Your task to perform on an android device: change the clock display to analog Image 0: 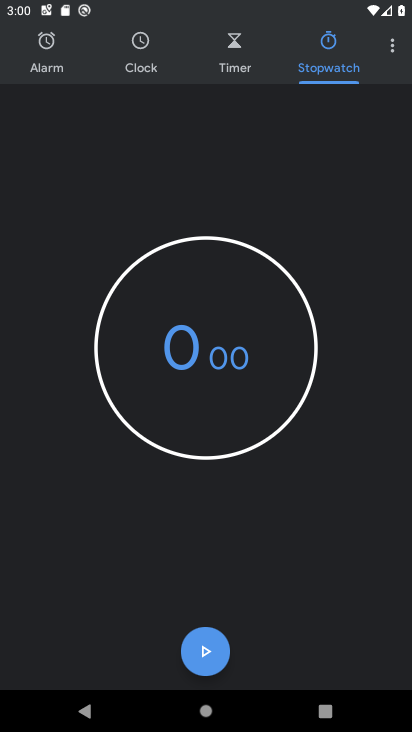
Step 0: press home button
Your task to perform on an android device: change the clock display to analog Image 1: 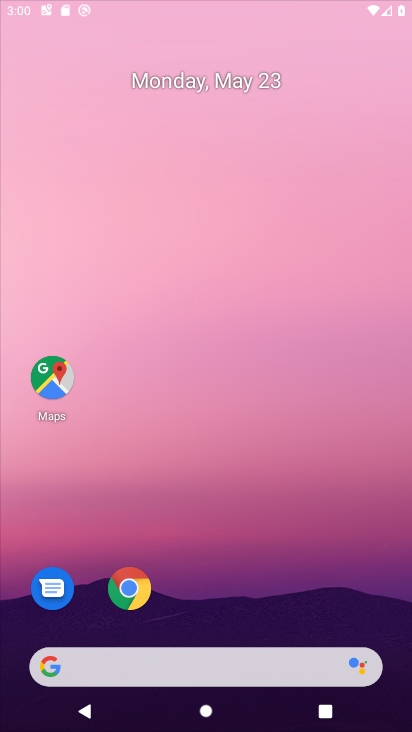
Step 1: drag from (206, 666) to (261, 189)
Your task to perform on an android device: change the clock display to analog Image 2: 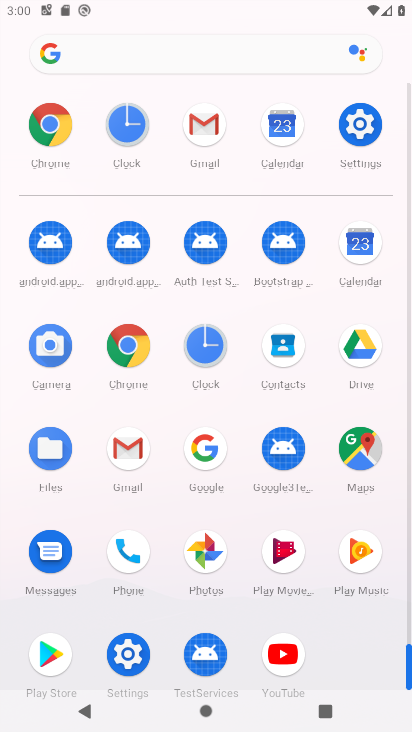
Step 2: click (190, 362)
Your task to perform on an android device: change the clock display to analog Image 3: 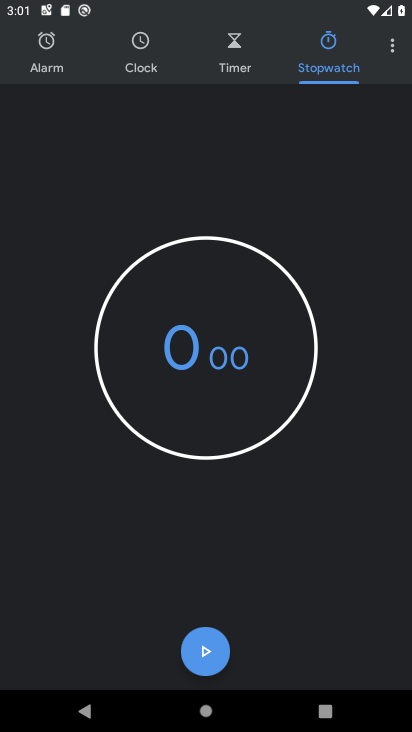
Step 3: click (383, 43)
Your task to perform on an android device: change the clock display to analog Image 4: 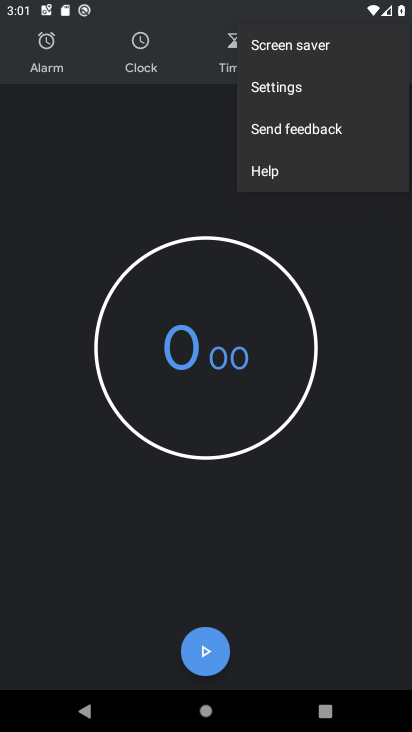
Step 4: click (293, 93)
Your task to perform on an android device: change the clock display to analog Image 5: 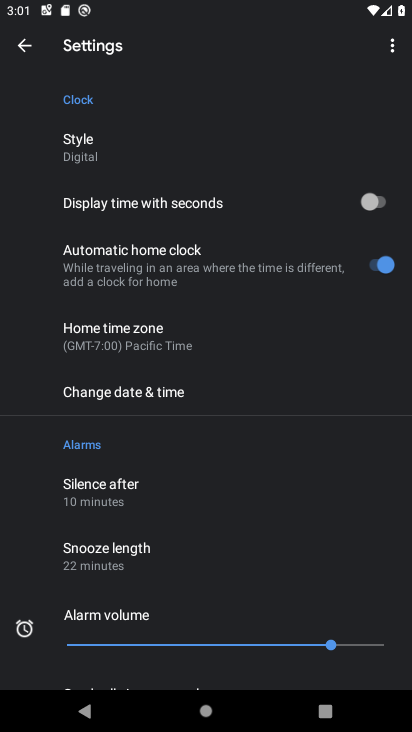
Step 5: click (103, 151)
Your task to perform on an android device: change the clock display to analog Image 6: 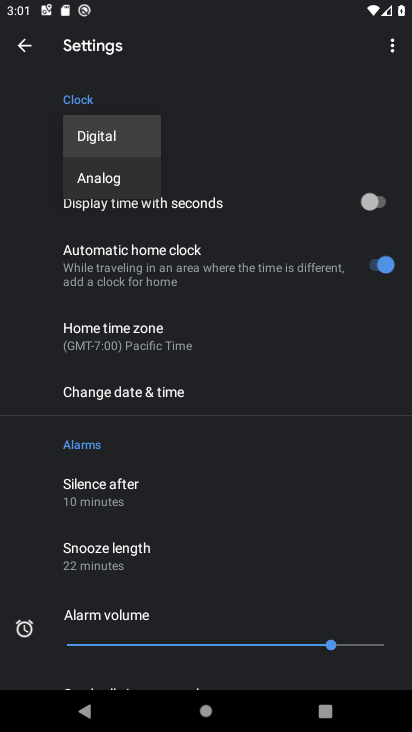
Step 6: click (104, 174)
Your task to perform on an android device: change the clock display to analog Image 7: 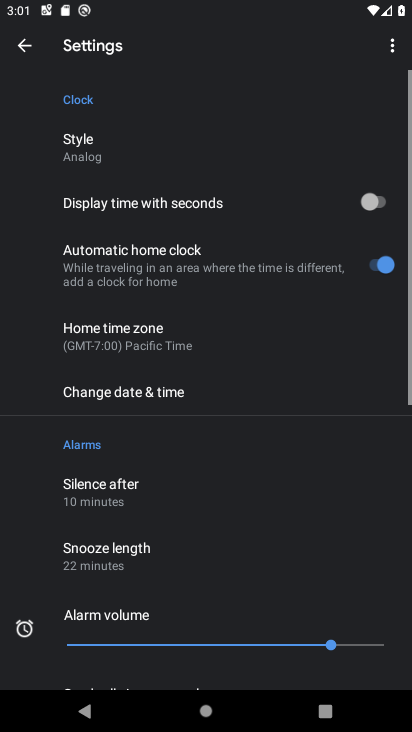
Step 7: task complete